Your task to perform on an android device: check google app version Image 0: 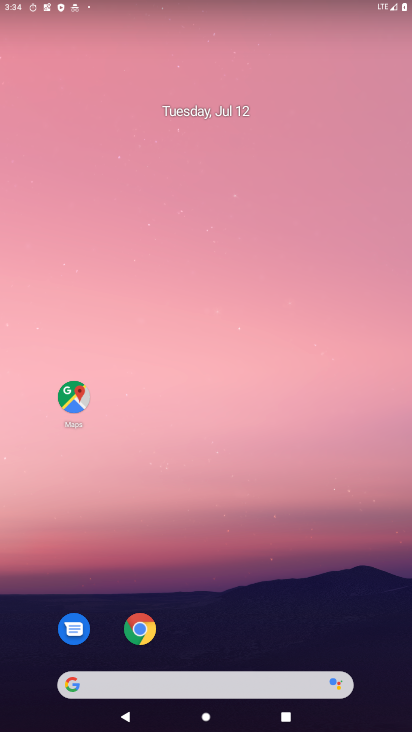
Step 0: drag from (247, 636) to (317, 125)
Your task to perform on an android device: check google app version Image 1: 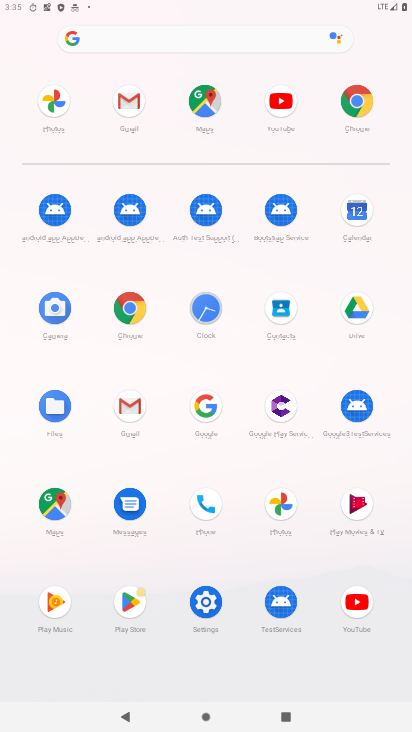
Step 1: click (201, 407)
Your task to perform on an android device: check google app version Image 2: 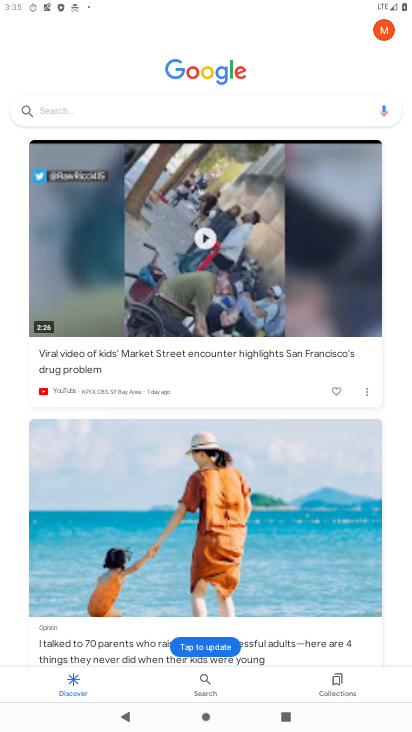
Step 2: press home button
Your task to perform on an android device: check google app version Image 3: 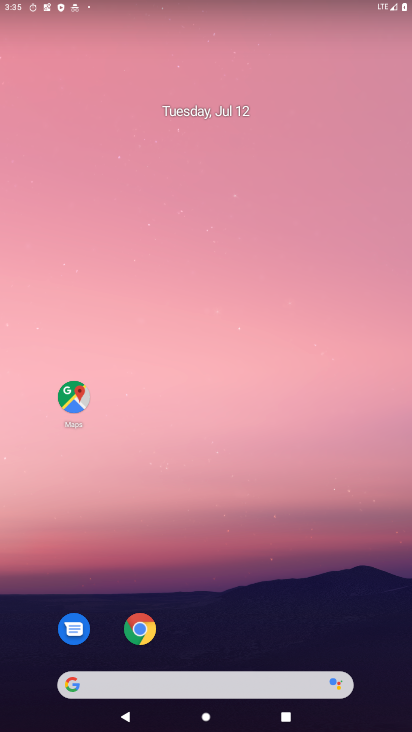
Step 3: drag from (252, 461) to (324, 131)
Your task to perform on an android device: check google app version Image 4: 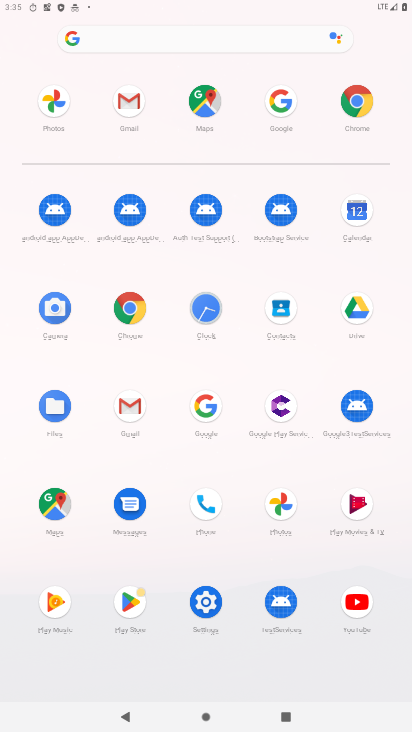
Step 4: click (209, 397)
Your task to perform on an android device: check google app version Image 5: 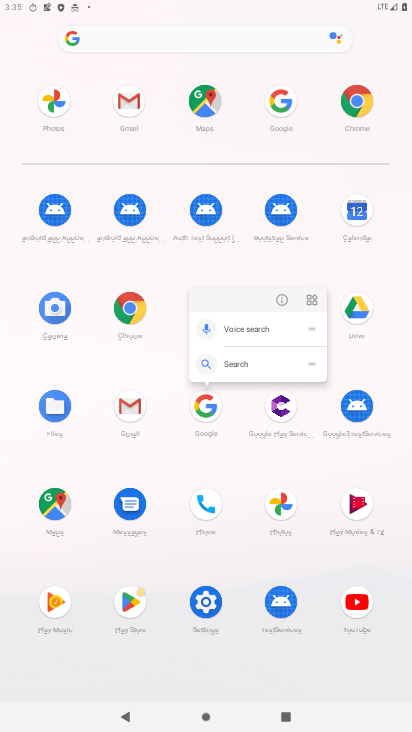
Step 5: click (279, 297)
Your task to perform on an android device: check google app version Image 6: 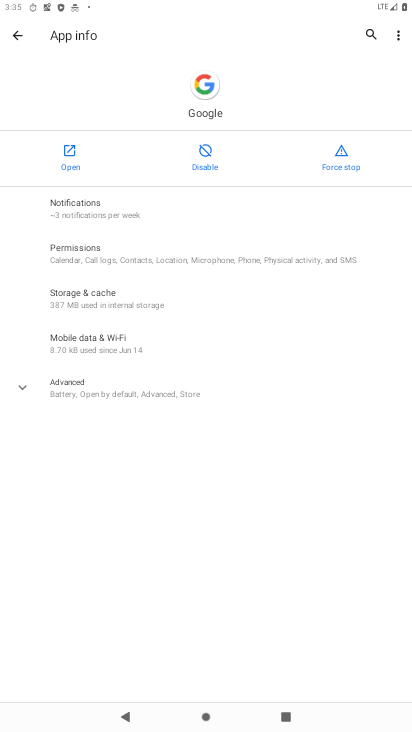
Step 6: click (74, 386)
Your task to perform on an android device: check google app version Image 7: 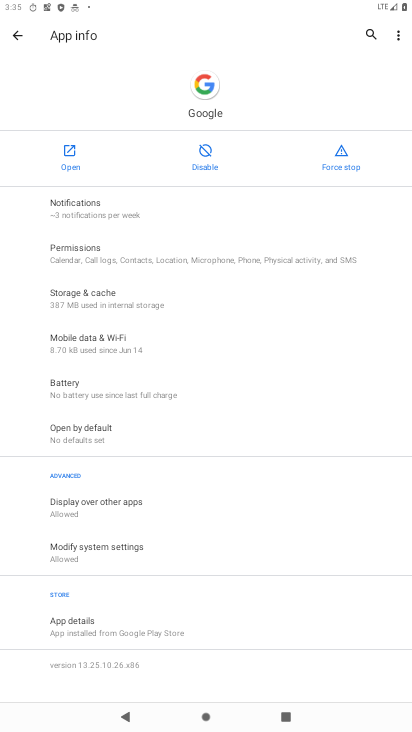
Step 7: task complete